Your task to perform on an android device: snooze an email in the gmail app Image 0: 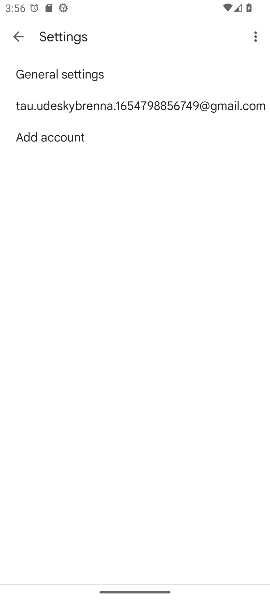
Step 0: press home button
Your task to perform on an android device: snooze an email in the gmail app Image 1: 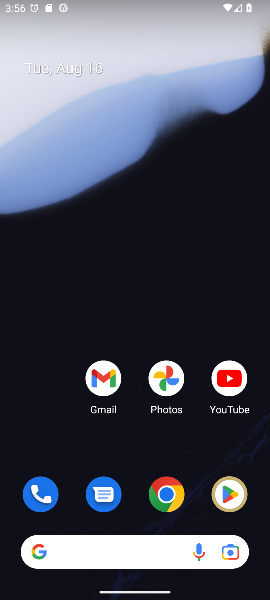
Step 1: drag from (145, 490) to (25, 220)
Your task to perform on an android device: snooze an email in the gmail app Image 2: 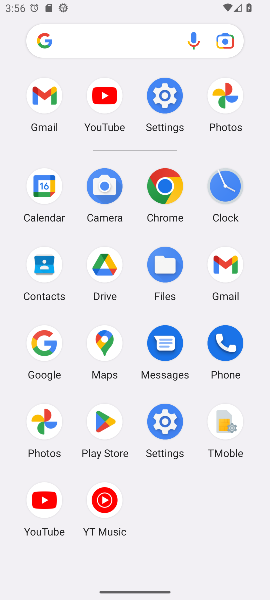
Step 2: click (233, 272)
Your task to perform on an android device: snooze an email in the gmail app Image 3: 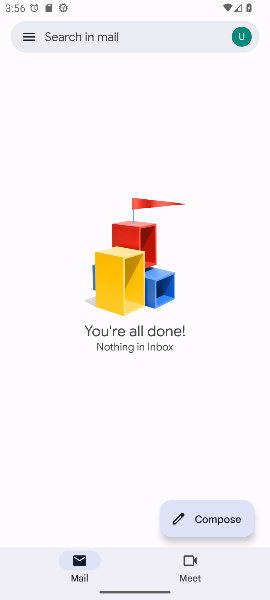
Step 3: click (25, 32)
Your task to perform on an android device: snooze an email in the gmail app Image 4: 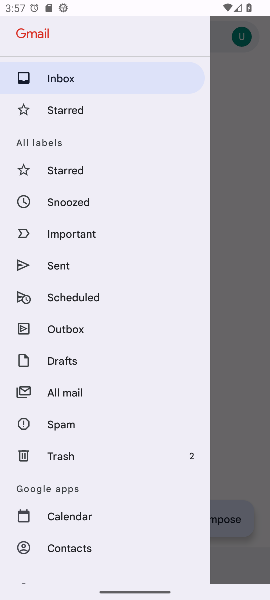
Step 4: click (72, 391)
Your task to perform on an android device: snooze an email in the gmail app Image 5: 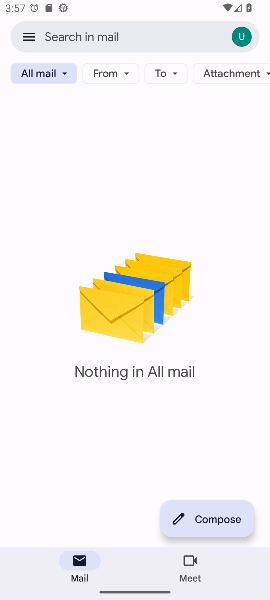
Step 5: task complete